Your task to perform on an android device: turn on location history Image 0: 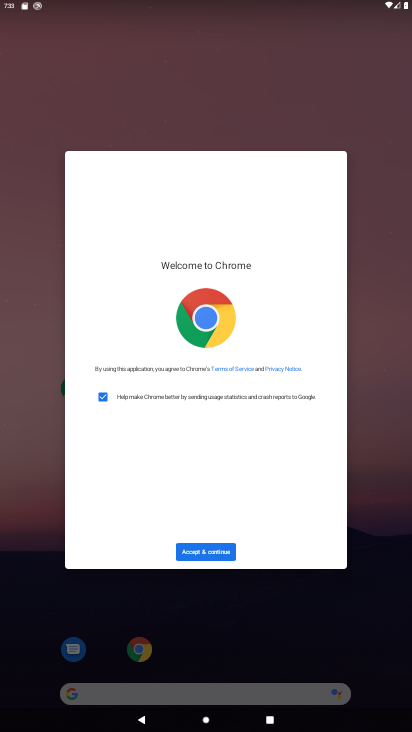
Step 0: press home button
Your task to perform on an android device: turn on location history Image 1: 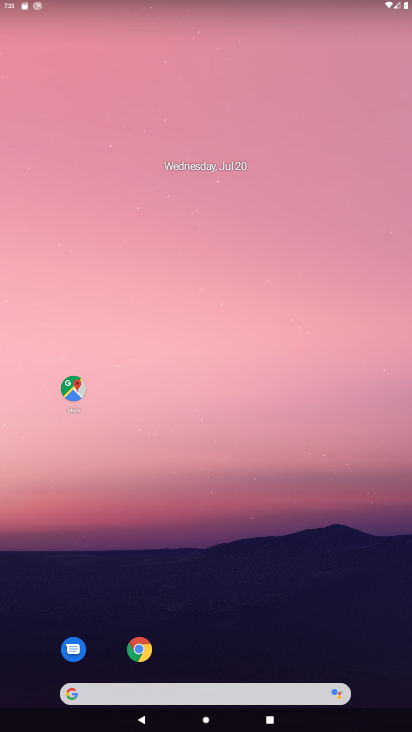
Step 1: drag from (264, 669) to (274, 229)
Your task to perform on an android device: turn on location history Image 2: 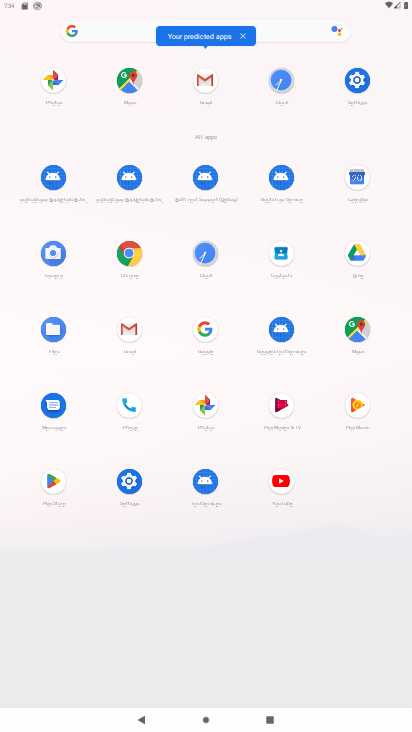
Step 2: click (368, 87)
Your task to perform on an android device: turn on location history Image 3: 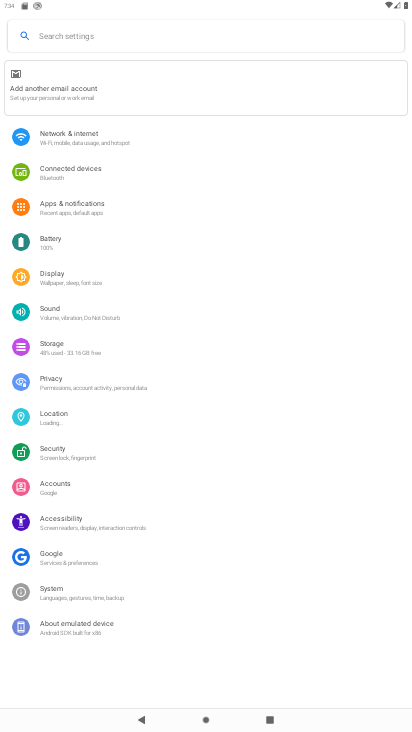
Step 3: click (190, 418)
Your task to perform on an android device: turn on location history Image 4: 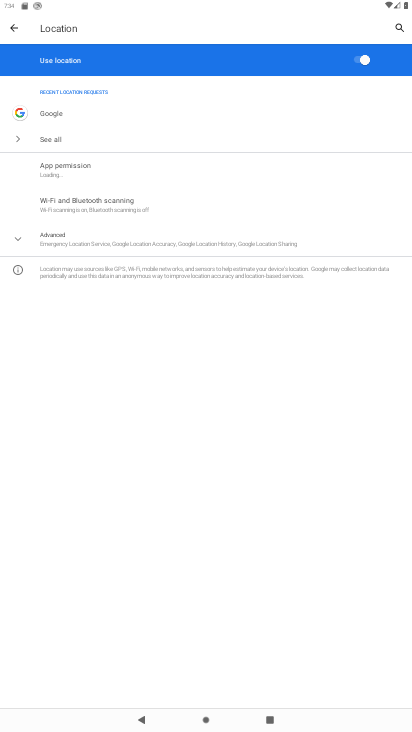
Step 4: click (143, 243)
Your task to perform on an android device: turn on location history Image 5: 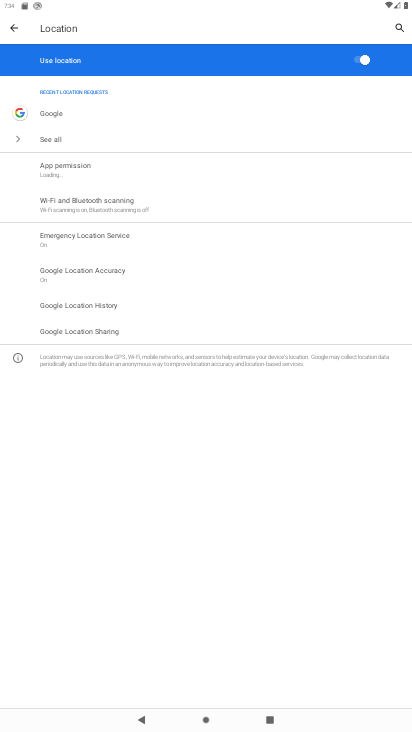
Step 5: click (122, 302)
Your task to perform on an android device: turn on location history Image 6: 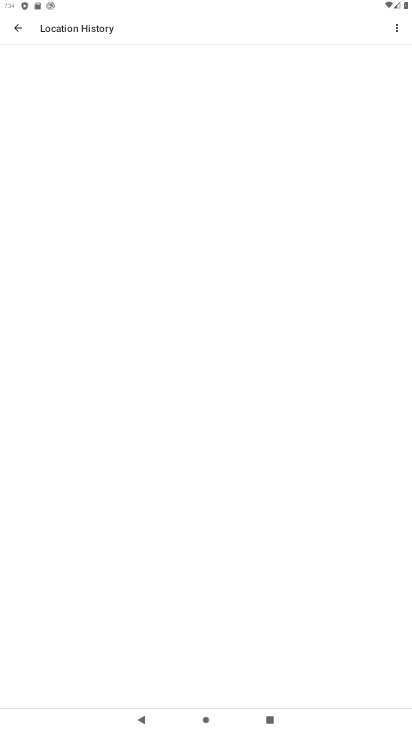
Step 6: task complete